Your task to perform on an android device: open device folders in google photos Image 0: 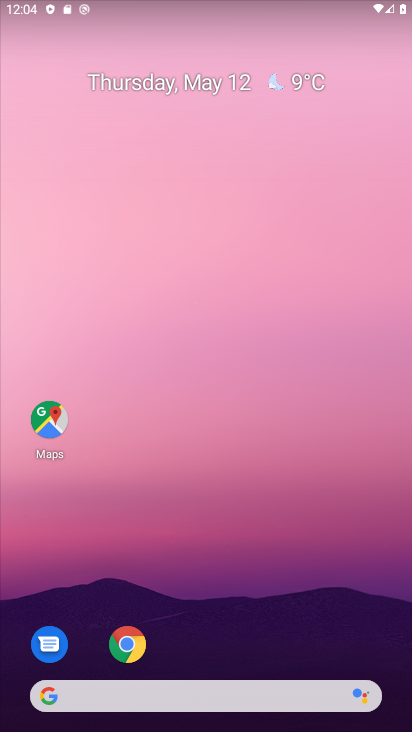
Step 0: drag from (224, 555) to (107, 94)
Your task to perform on an android device: open device folders in google photos Image 1: 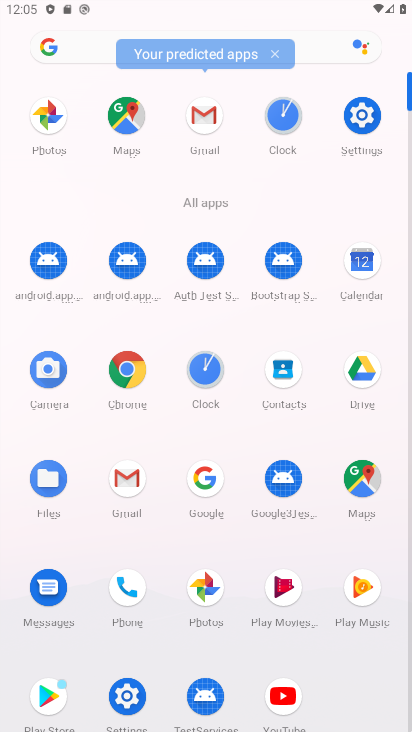
Step 1: click (44, 116)
Your task to perform on an android device: open device folders in google photos Image 2: 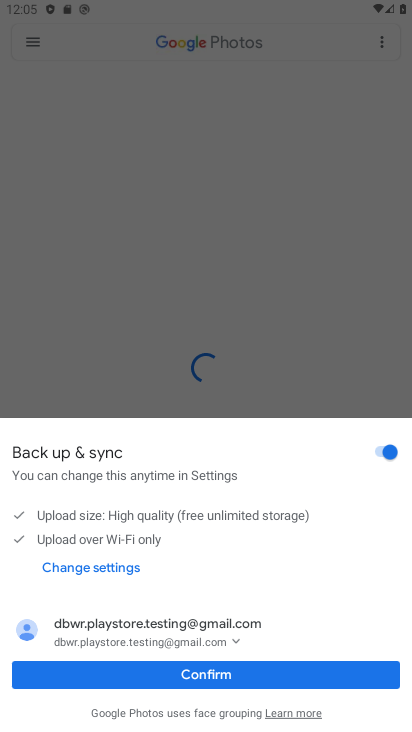
Step 2: click (193, 672)
Your task to perform on an android device: open device folders in google photos Image 3: 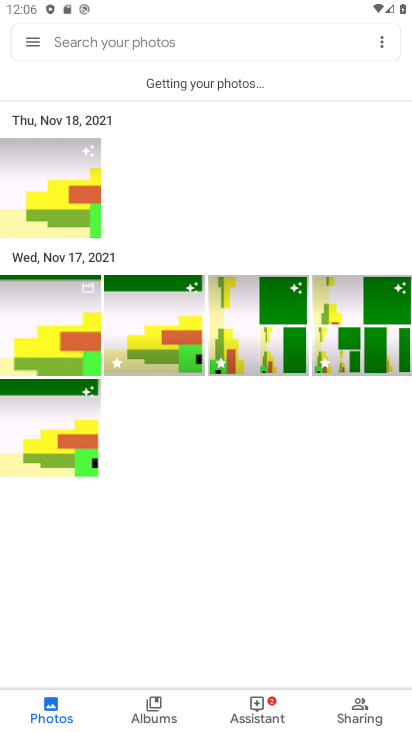
Step 3: click (31, 36)
Your task to perform on an android device: open device folders in google photos Image 4: 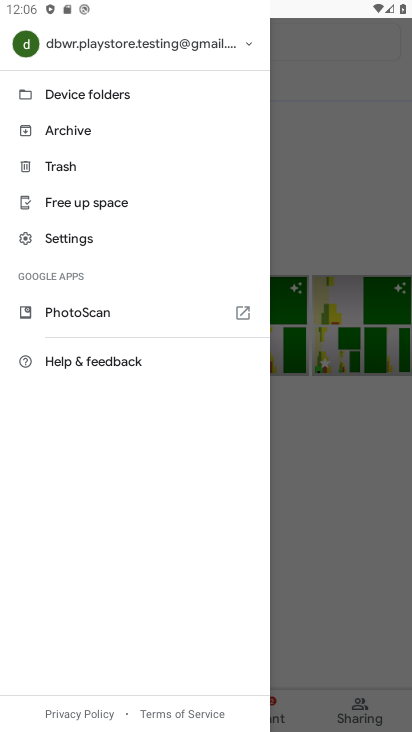
Step 4: click (95, 94)
Your task to perform on an android device: open device folders in google photos Image 5: 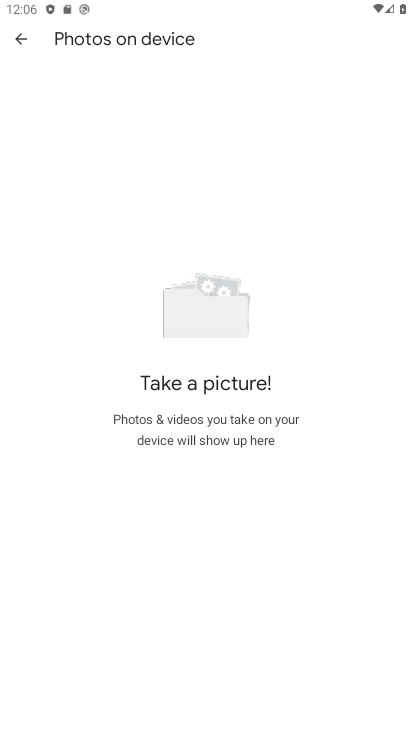
Step 5: task complete